Your task to perform on an android device: Open Chrome and go to settings Image 0: 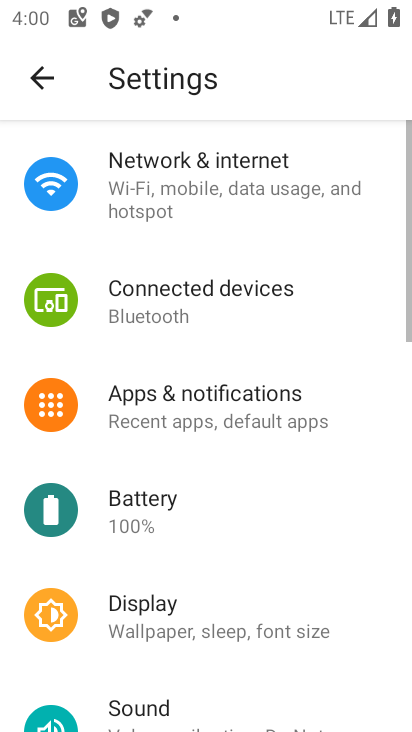
Step 0: press home button
Your task to perform on an android device: Open Chrome and go to settings Image 1: 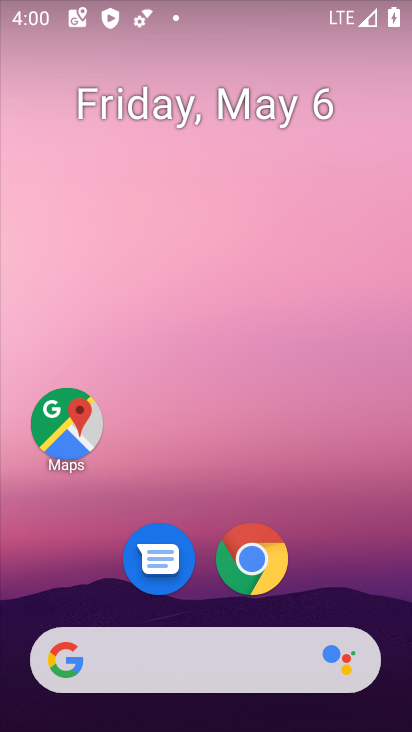
Step 1: click (256, 569)
Your task to perform on an android device: Open Chrome and go to settings Image 2: 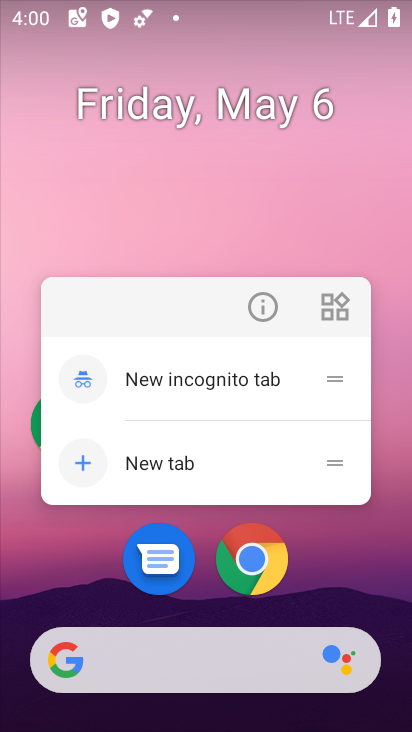
Step 2: click (254, 559)
Your task to perform on an android device: Open Chrome and go to settings Image 3: 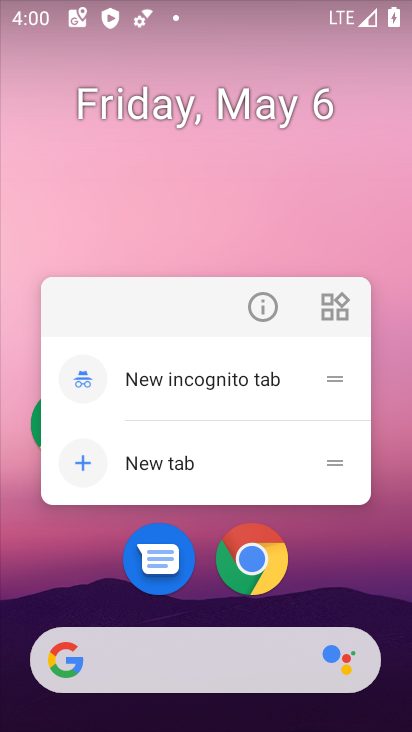
Step 3: click (247, 561)
Your task to perform on an android device: Open Chrome and go to settings Image 4: 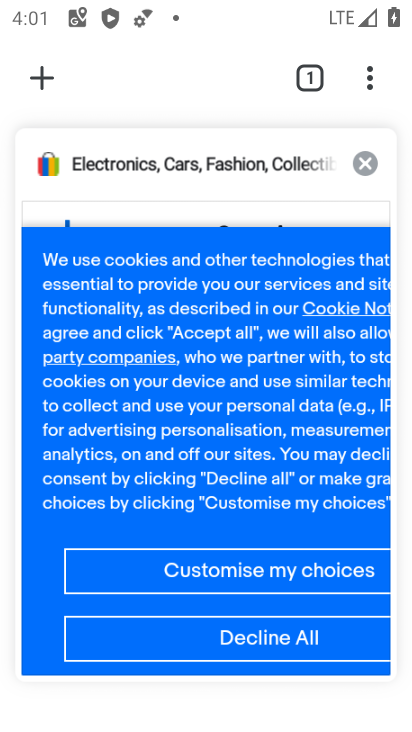
Step 4: click (369, 78)
Your task to perform on an android device: Open Chrome and go to settings Image 5: 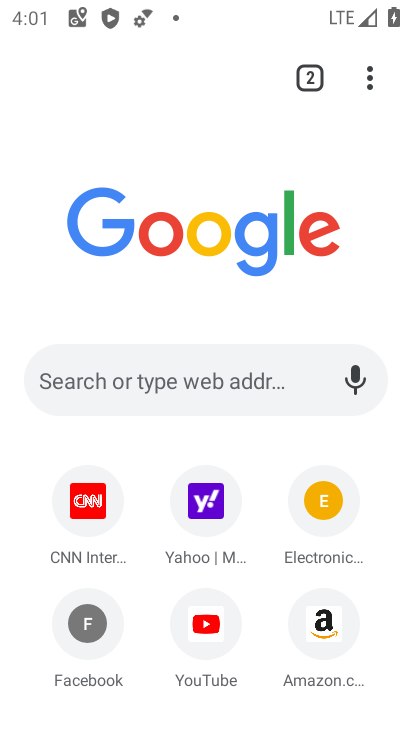
Step 5: click (366, 78)
Your task to perform on an android device: Open Chrome and go to settings Image 6: 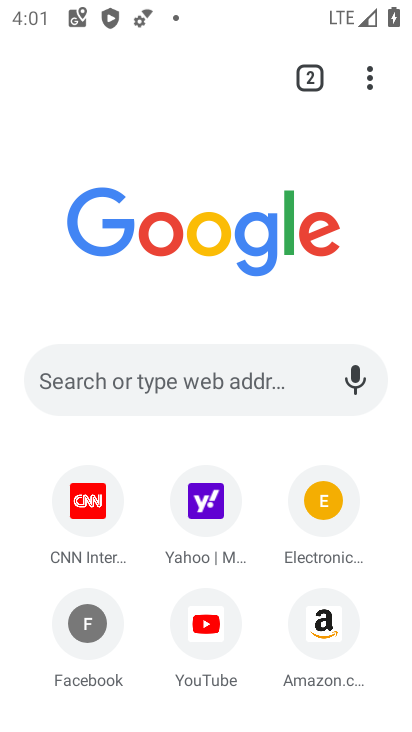
Step 6: click (376, 84)
Your task to perform on an android device: Open Chrome and go to settings Image 7: 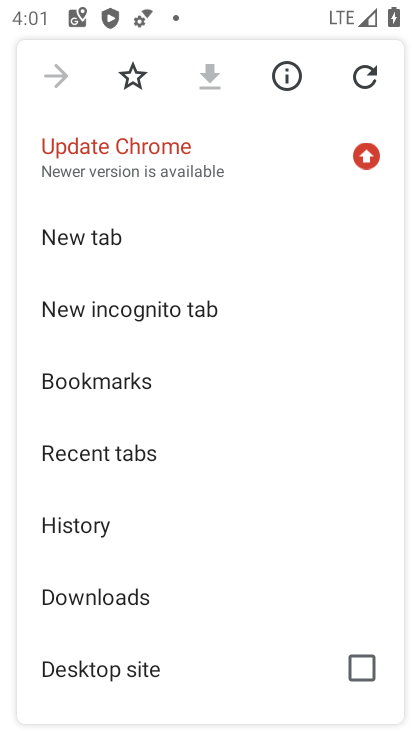
Step 7: drag from (134, 665) to (200, 168)
Your task to perform on an android device: Open Chrome and go to settings Image 8: 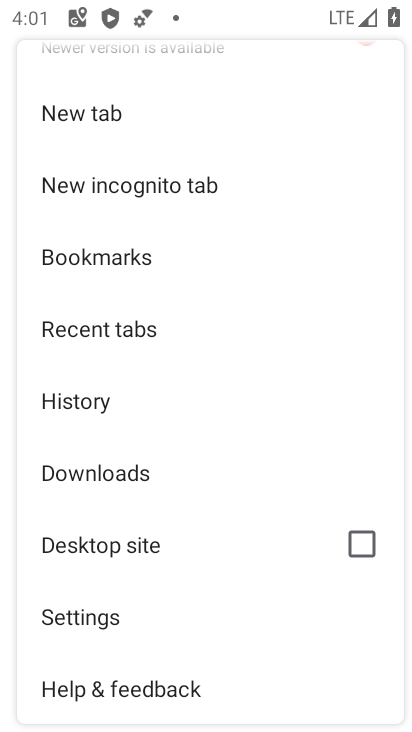
Step 8: click (113, 616)
Your task to perform on an android device: Open Chrome and go to settings Image 9: 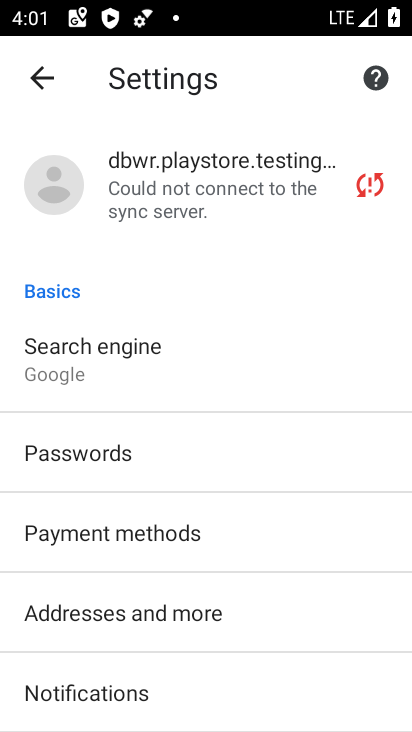
Step 9: task complete